Your task to perform on an android device: Show me popular videos on Youtube Image 0: 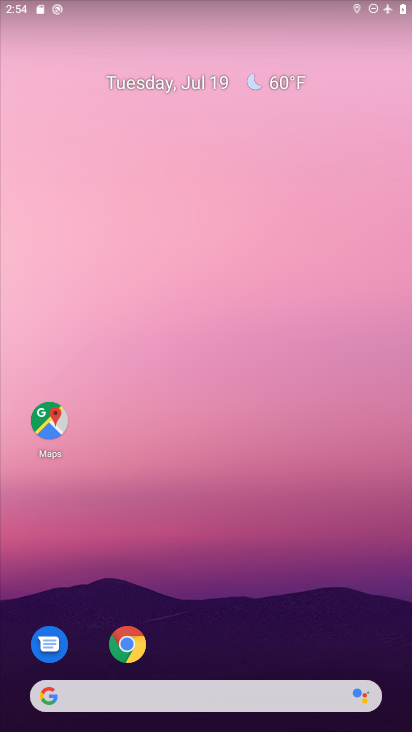
Step 0: drag from (212, 663) to (110, 0)
Your task to perform on an android device: Show me popular videos on Youtube Image 1: 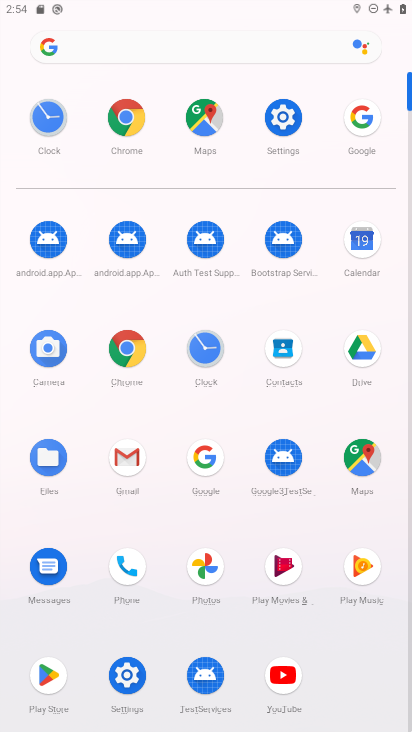
Step 1: click (292, 684)
Your task to perform on an android device: Show me popular videos on Youtube Image 2: 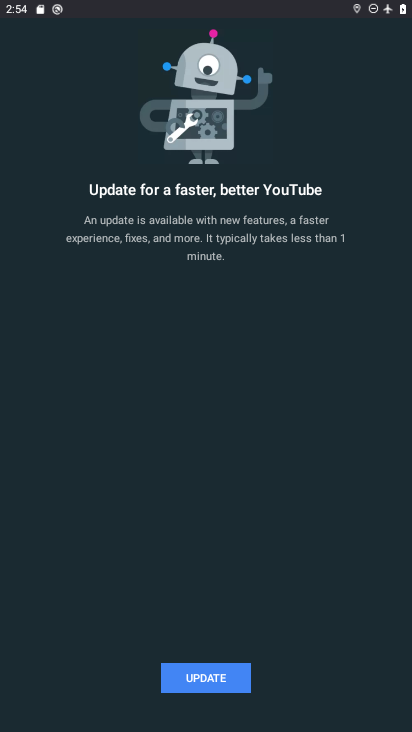
Step 2: click (221, 678)
Your task to perform on an android device: Show me popular videos on Youtube Image 3: 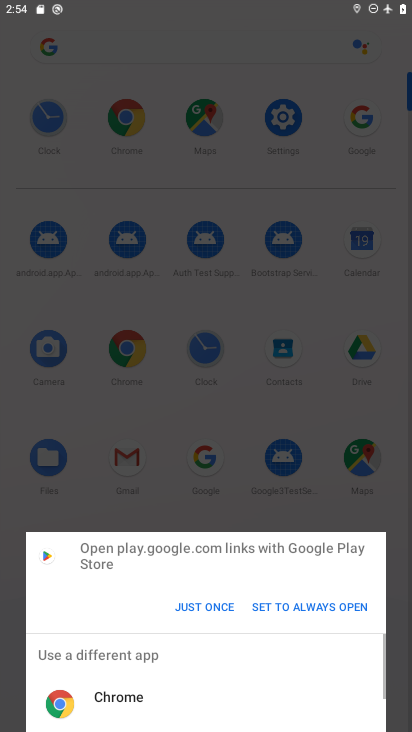
Step 3: click (211, 613)
Your task to perform on an android device: Show me popular videos on Youtube Image 4: 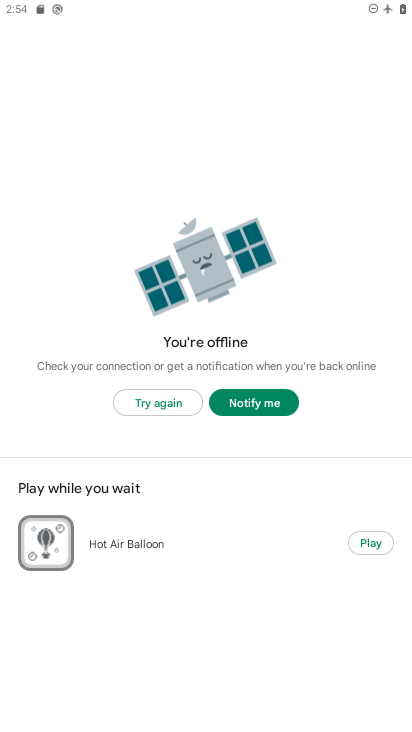
Step 4: task complete